Your task to perform on an android device: open app "Cash App" (install if not already installed) and enter user name: "submodules@gmail.com" and password: "heavenly" Image 0: 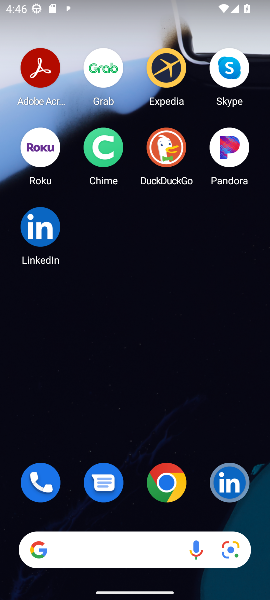
Step 0: drag from (134, 520) to (132, 65)
Your task to perform on an android device: open app "Cash App" (install if not already installed) and enter user name: "submodules@gmail.com" and password: "heavenly" Image 1: 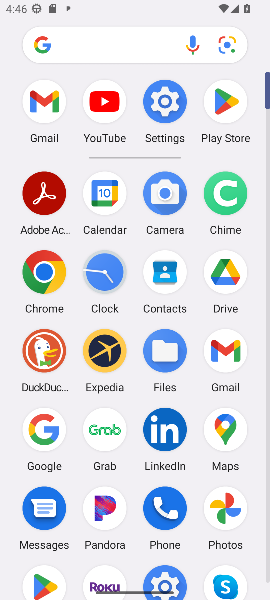
Step 1: click (233, 103)
Your task to perform on an android device: open app "Cash App" (install if not already installed) and enter user name: "submodules@gmail.com" and password: "heavenly" Image 2: 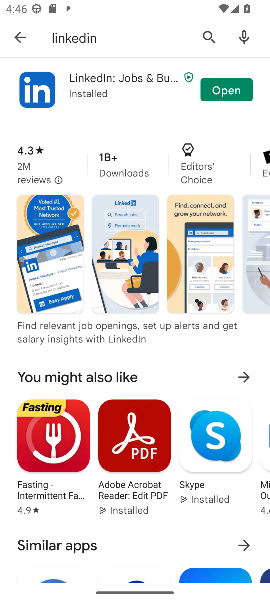
Step 2: click (210, 36)
Your task to perform on an android device: open app "Cash App" (install if not already installed) and enter user name: "submodules@gmail.com" and password: "heavenly" Image 3: 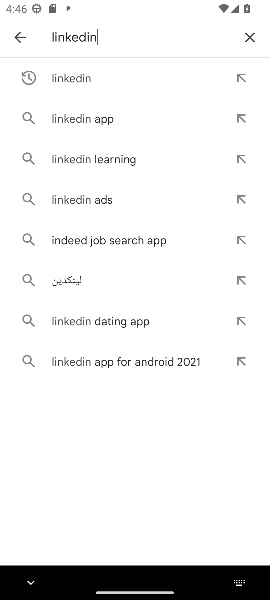
Step 3: click (250, 35)
Your task to perform on an android device: open app "Cash App" (install if not already installed) and enter user name: "submodules@gmail.com" and password: "heavenly" Image 4: 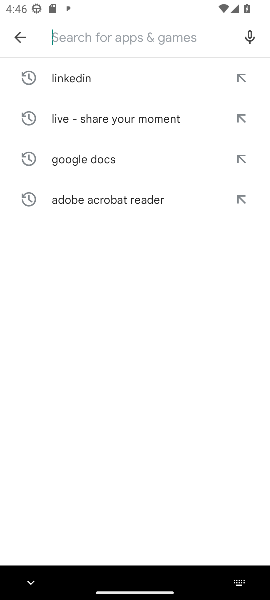
Step 4: type "Cash App"
Your task to perform on an android device: open app "Cash App" (install if not already installed) and enter user name: "submodules@gmail.com" and password: "heavenly" Image 5: 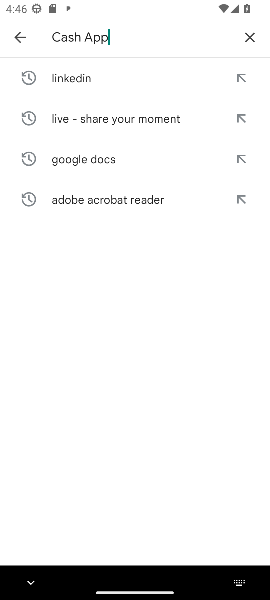
Step 5: type ""
Your task to perform on an android device: open app "Cash App" (install if not already installed) and enter user name: "submodules@gmail.com" and password: "heavenly" Image 6: 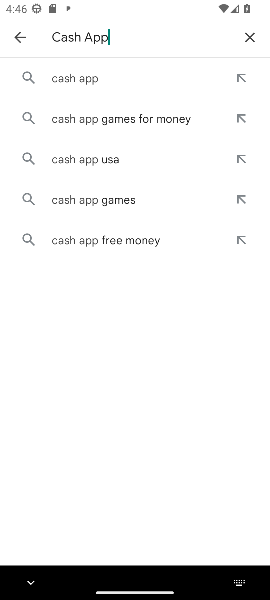
Step 6: click (79, 74)
Your task to perform on an android device: open app "Cash App" (install if not already installed) and enter user name: "submodules@gmail.com" and password: "heavenly" Image 7: 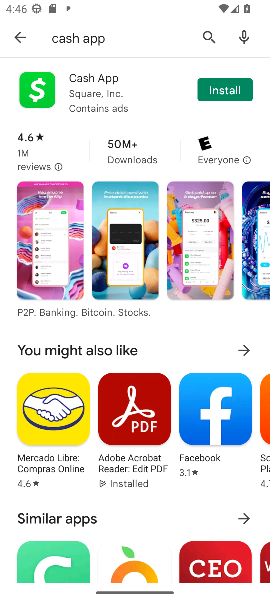
Step 7: click (218, 92)
Your task to perform on an android device: open app "Cash App" (install if not already installed) and enter user name: "submodules@gmail.com" and password: "heavenly" Image 8: 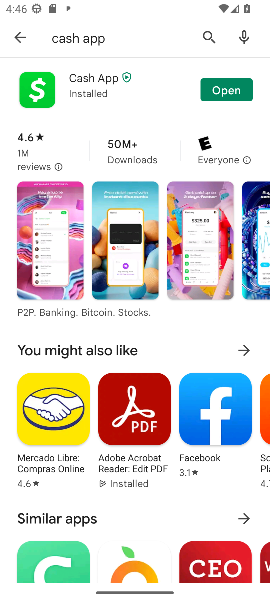
Step 8: click (216, 89)
Your task to perform on an android device: open app "Cash App" (install if not already installed) and enter user name: "submodules@gmail.com" and password: "heavenly" Image 9: 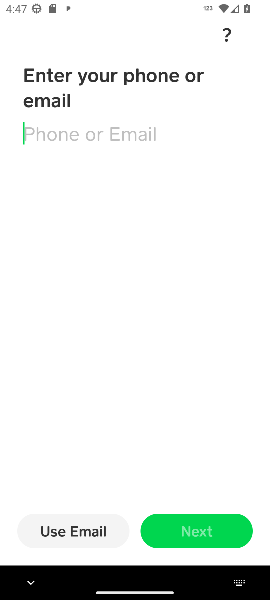
Step 9: click (68, 531)
Your task to perform on an android device: open app "Cash App" (install if not already installed) and enter user name: "submodules@gmail.com" and password: "heavenly" Image 10: 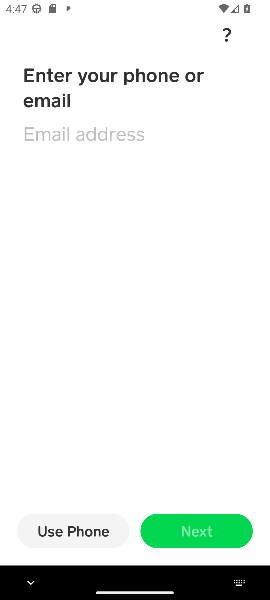
Step 10: type "submodules@gmail.com"
Your task to perform on an android device: open app "Cash App" (install if not already installed) and enter user name: "submodules@gmail.com" and password: "heavenly" Image 11: 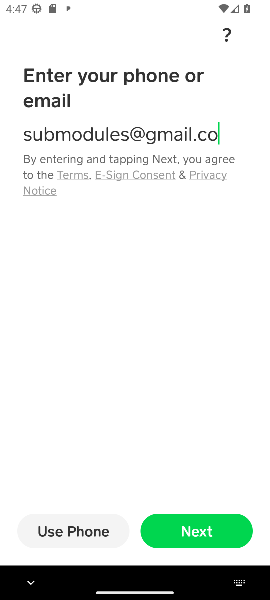
Step 11: type ""
Your task to perform on an android device: open app "Cash App" (install if not already installed) and enter user name: "submodules@gmail.com" and password: "heavenly" Image 12: 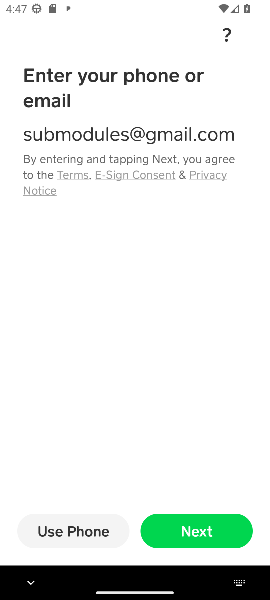
Step 12: click (201, 507)
Your task to perform on an android device: open app "Cash App" (install if not already installed) and enter user name: "submodules@gmail.com" and password: "heavenly" Image 13: 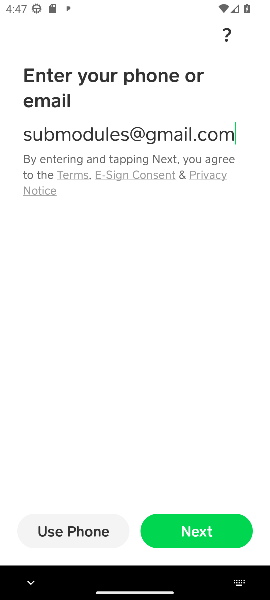
Step 13: click (201, 532)
Your task to perform on an android device: open app "Cash App" (install if not already installed) and enter user name: "submodules@gmail.com" and password: "heavenly" Image 14: 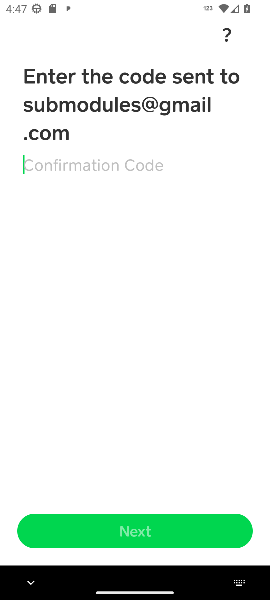
Step 14: type "heavenly"
Your task to perform on an android device: open app "Cash App" (install if not already installed) and enter user name: "submodules@gmail.com" and password: "heavenly" Image 15: 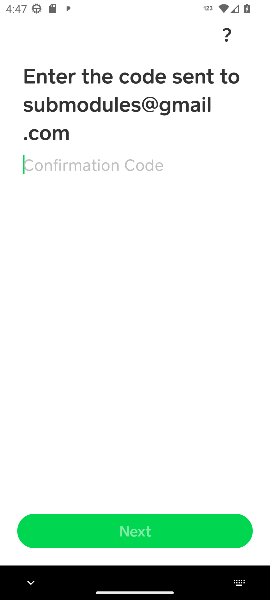
Step 15: type ""
Your task to perform on an android device: open app "Cash App" (install if not already installed) and enter user name: "submodules@gmail.com" and password: "heavenly" Image 16: 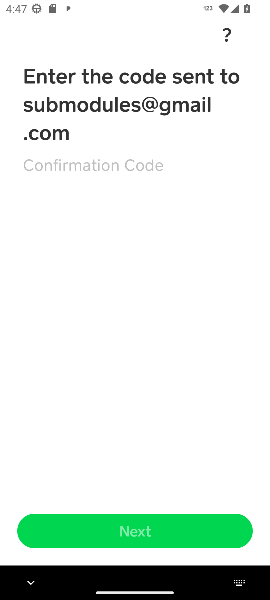
Step 16: task complete